Your task to perform on an android device: Set an alarm for 3pm Image 0: 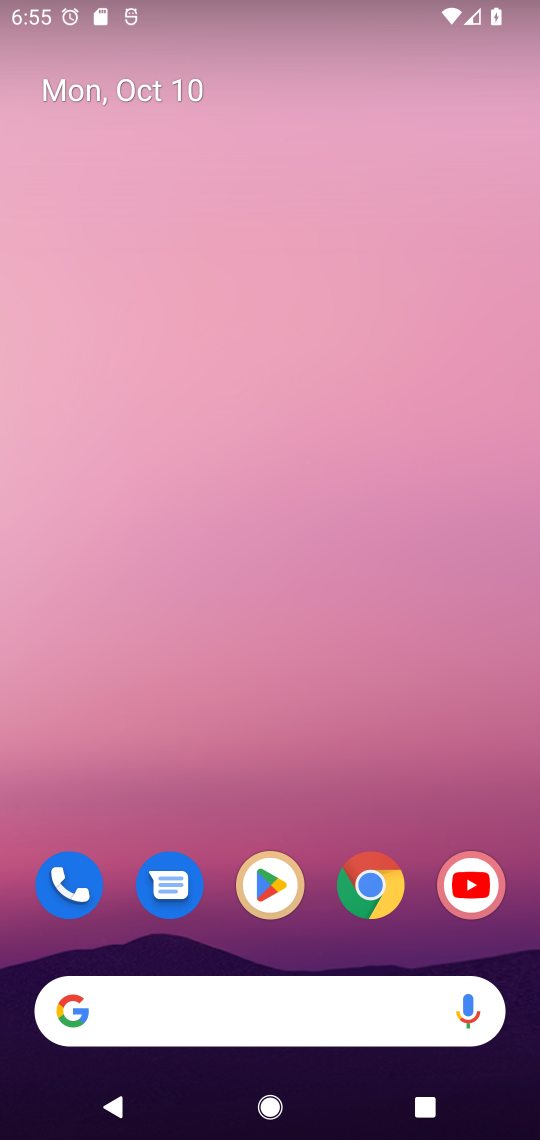
Step 0: drag from (445, 794) to (345, 273)
Your task to perform on an android device: Set an alarm for 3pm Image 1: 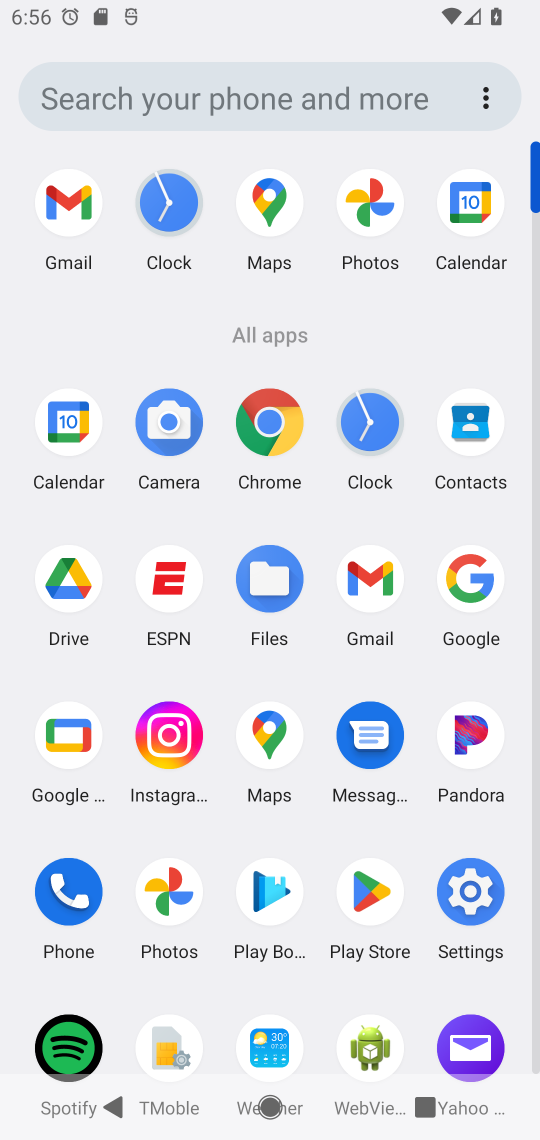
Step 1: click (370, 441)
Your task to perform on an android device: Set an alarm for 3pm Image 2: 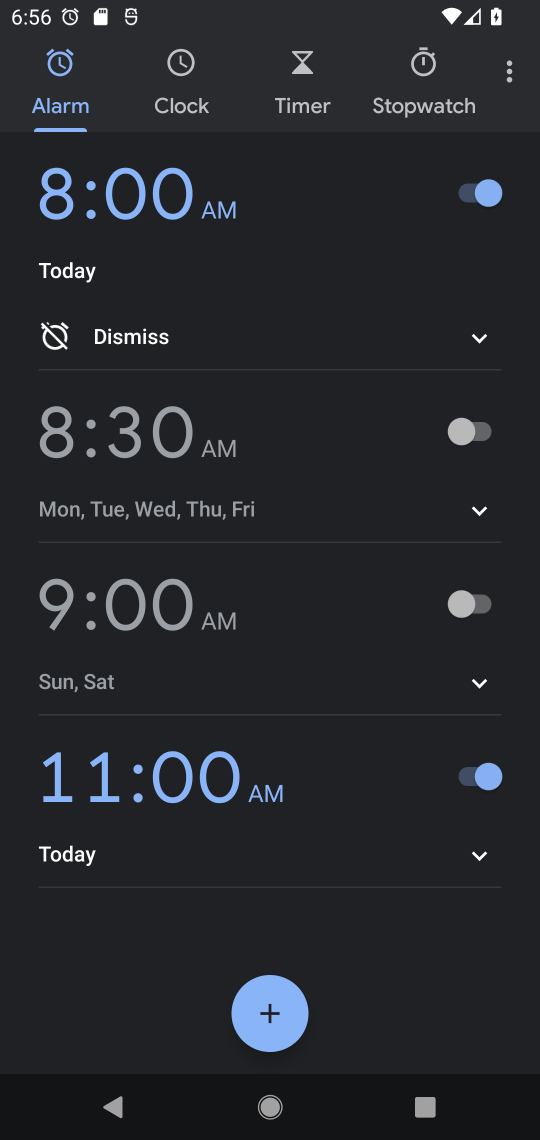
Step 2: click (282, 1028)
Your task to perform on an android device: Set an alarm for 3pm Image 3: 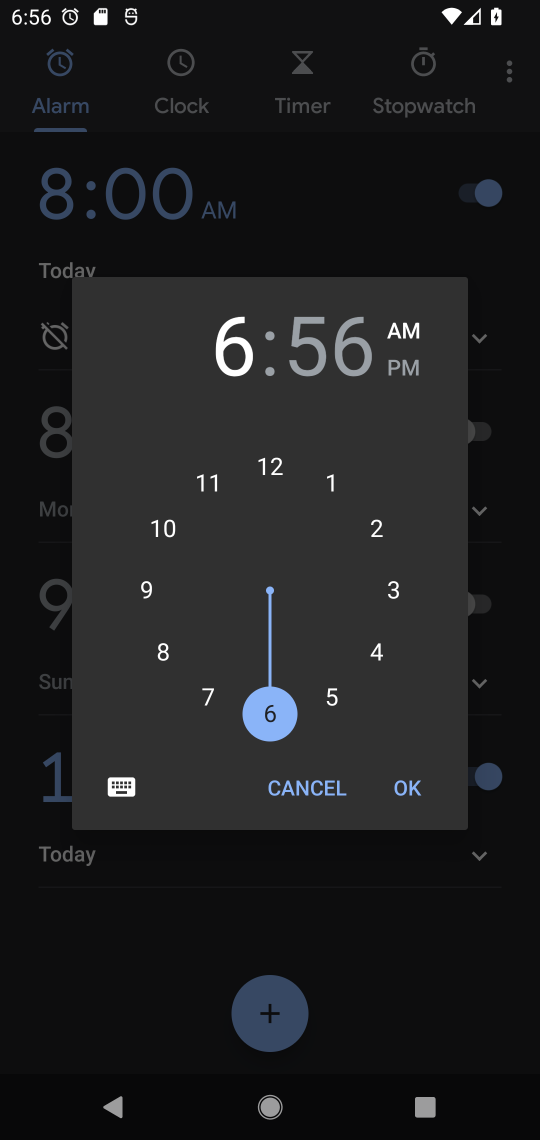
Step 3: click (402, 371)
Your task to perform on an android device: Set an alarm for 3pm Image 4: 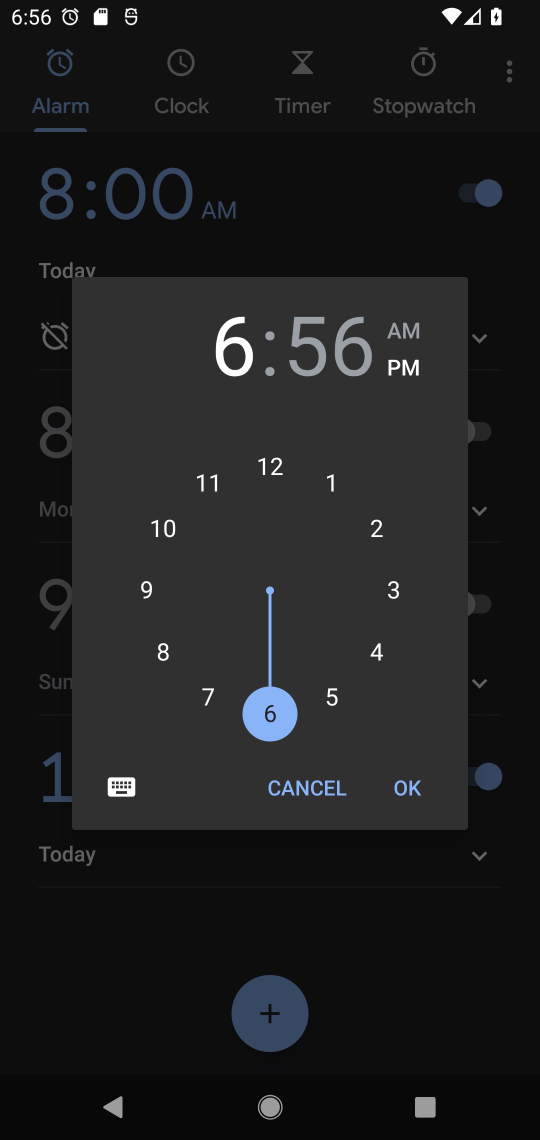
Step 4: click (401, 591)
Your task to perform on an android device: Set an alarm for 3pm Image 5: 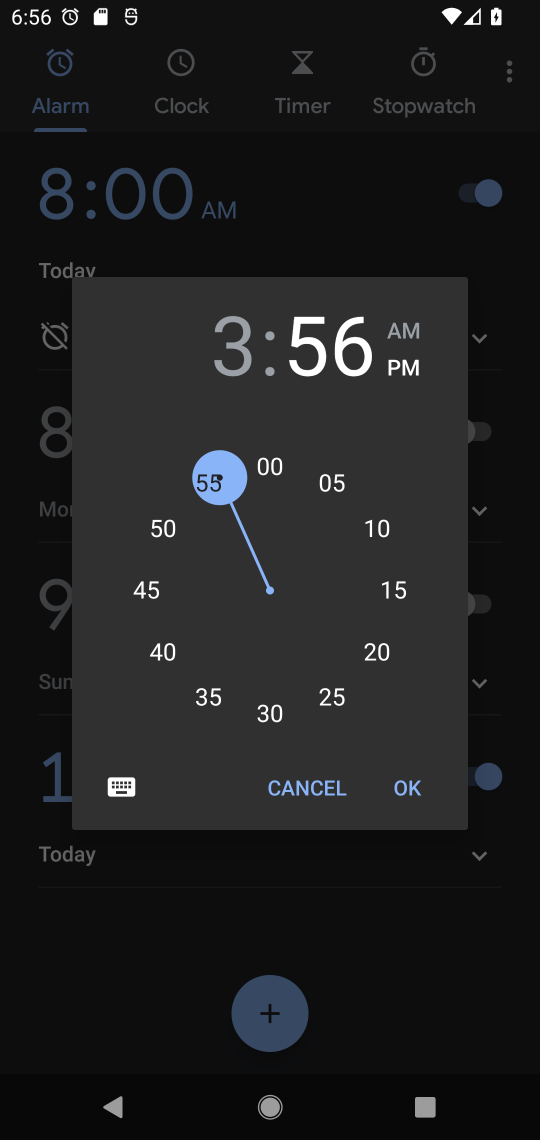
Step 5: click (274, 471)
Your task to perform on an android device: Set an alarm for 3pm Image 6: 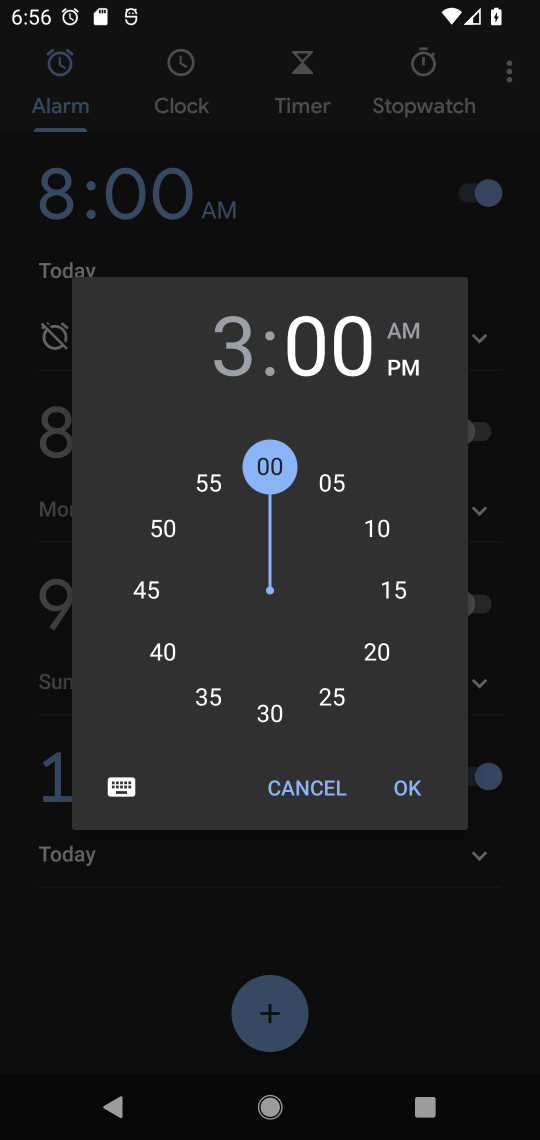
Step 6: click (407, 790)
Your task to perform on an android device: Set an alarm for 3pm Image 7: 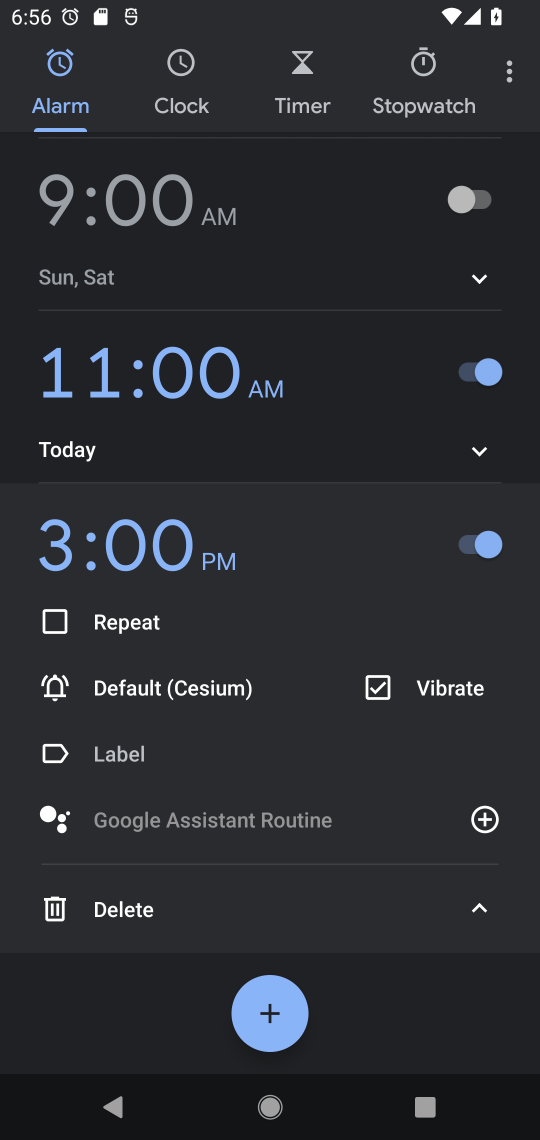
Step 7: task complete